Your task to perform on an android device: Go to privacy settings Image 0: 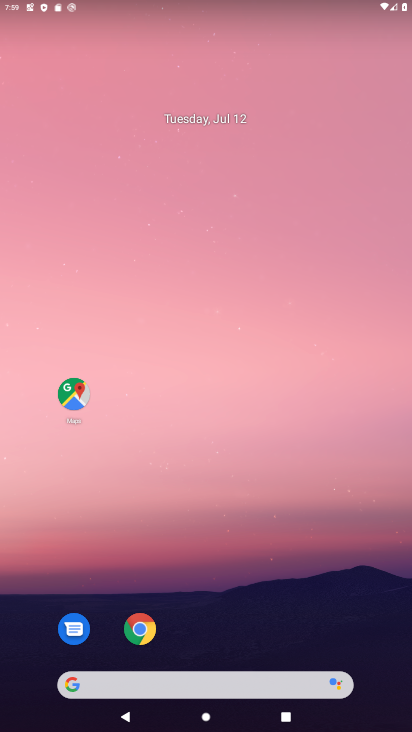
Step 0: drag from (215, 653) to (222, 349)
Your task to perform on an android device: Go to privacy settings Image 1: 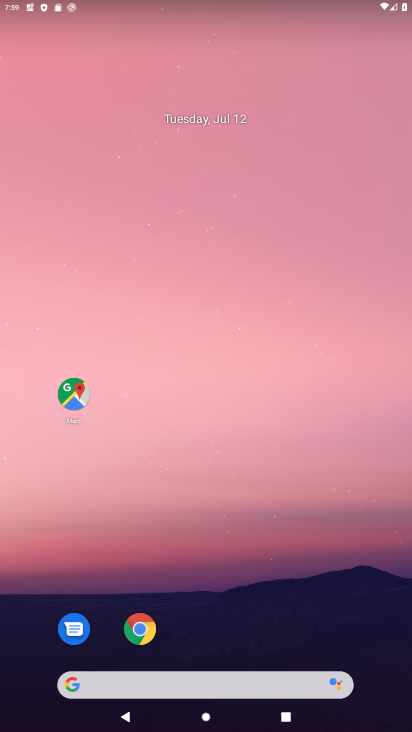
Step 1: drag from (223, 688) to (245, 334)
Your task to perform on an android device: Go to privacy settings Image 2: 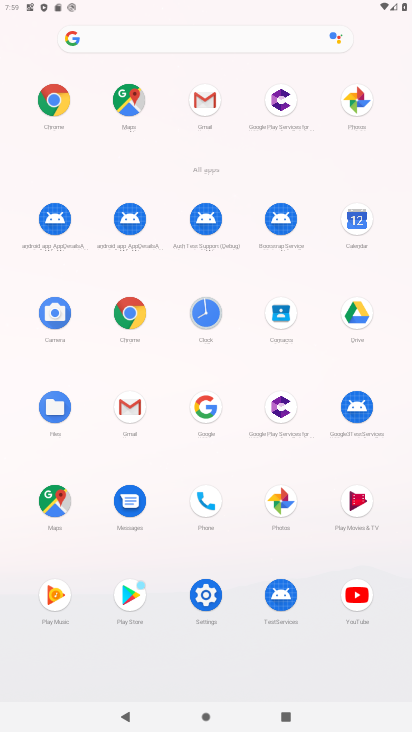
Step 2: click (191, 580)
Your task to perform on an android device: Go to privacy settings Image 3: 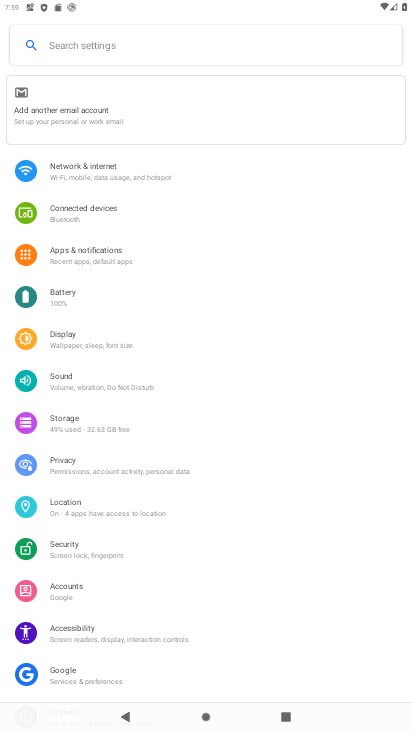
Step 3: click (90, 464)
Your task to perform on an android device: Go to privacy settings Image 4: 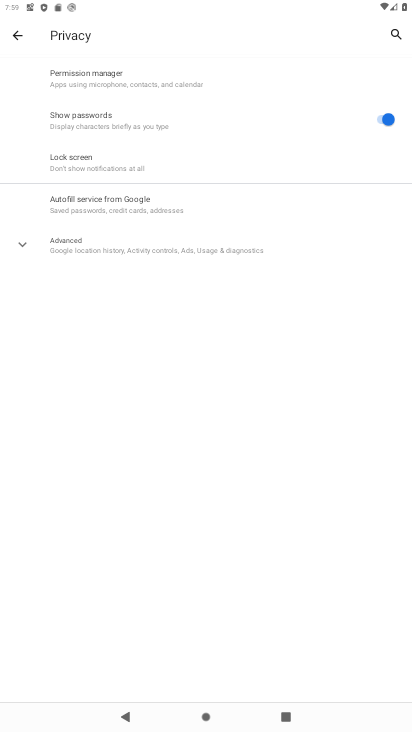
Step 4: task complete